Your task to perform on an android device: toggle pop-ups in chrome Image 0: 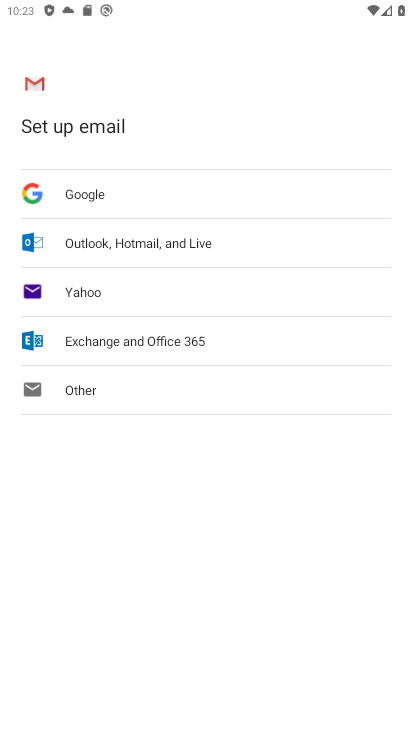
Step 0: press home button
Your task to perform on an android device: toggle pop-ups in chrome Image 1: 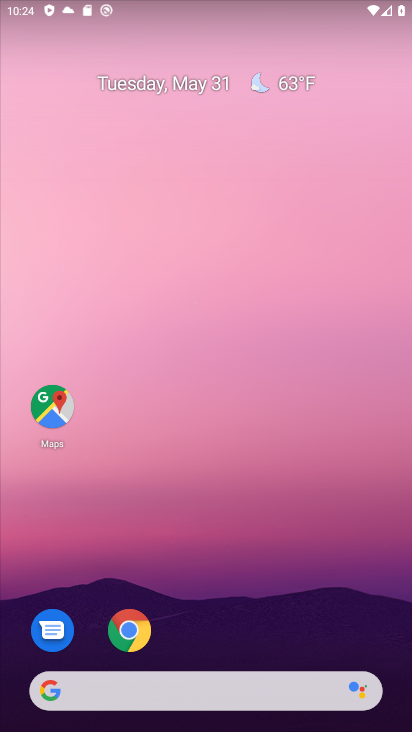
Step 1: click (128, 634)
Your task to perform on an android device: toggle pop-ups in chrome Image 2: 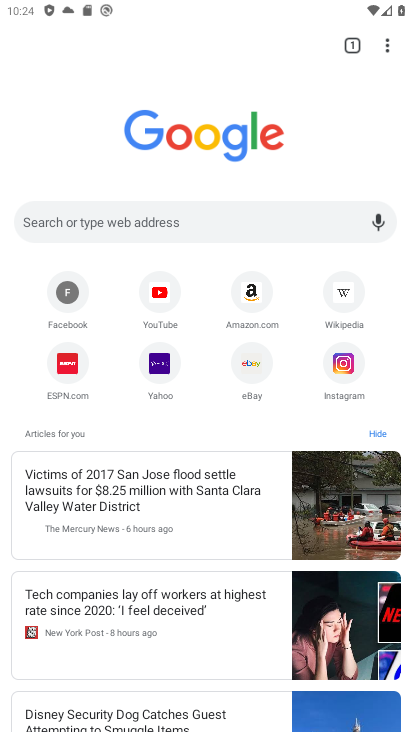
Step 2: click (392, 46)
Your task to perform on an android device: toggle pop-ups in chrome Image 3: 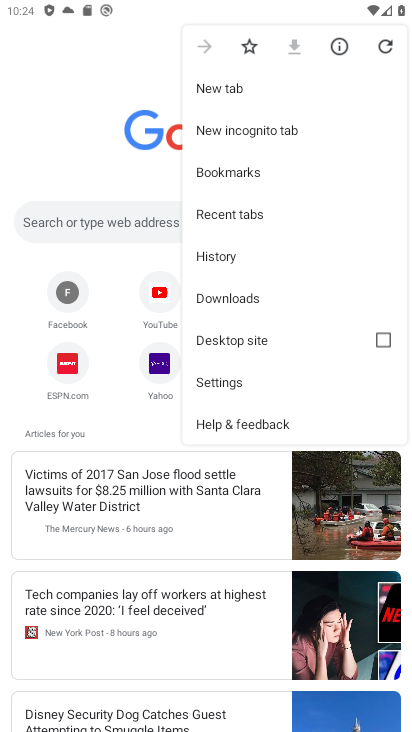
Step 3: click (221, 383)
Your task to perform on an android device: toggle pop-ups in chrome Image 4: 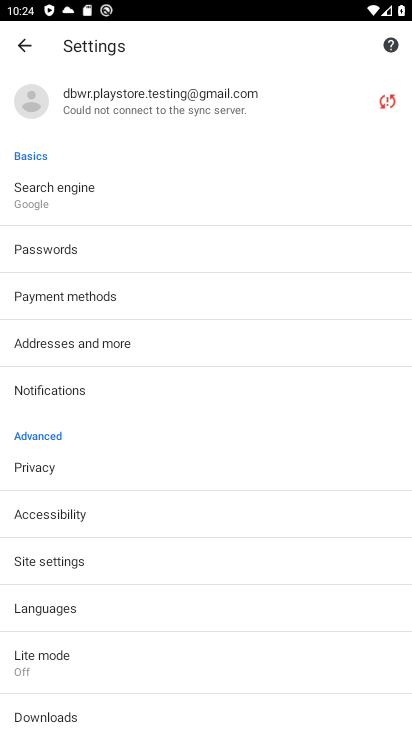
Step 4: click (75, 552)
Your task to perform on an android device: toggle pop-ups in chrome Image 5: 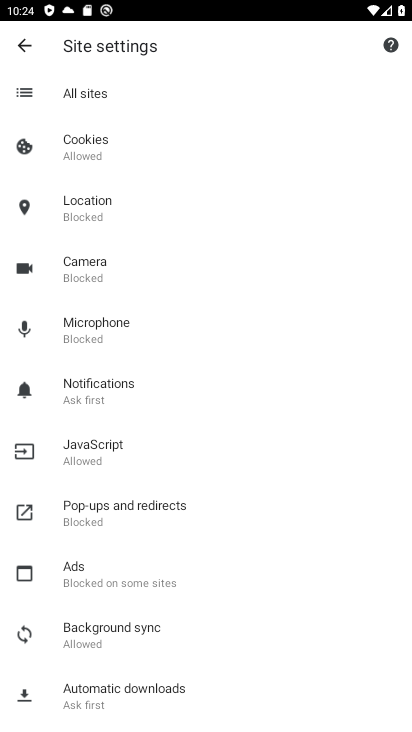
Step 5: click (101, 509)
Your task to perform on an android device: toggle pop-ups in chrome Image 6: 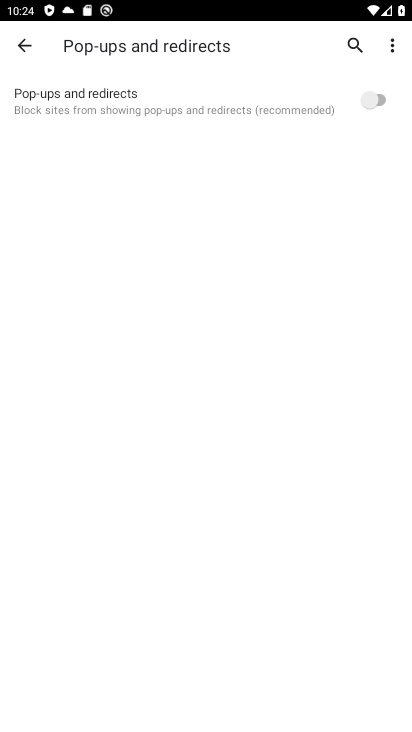
Step 6: click (386, 104)
Your task to perform on an android device: toggle pop-ups in chrome Image 7: 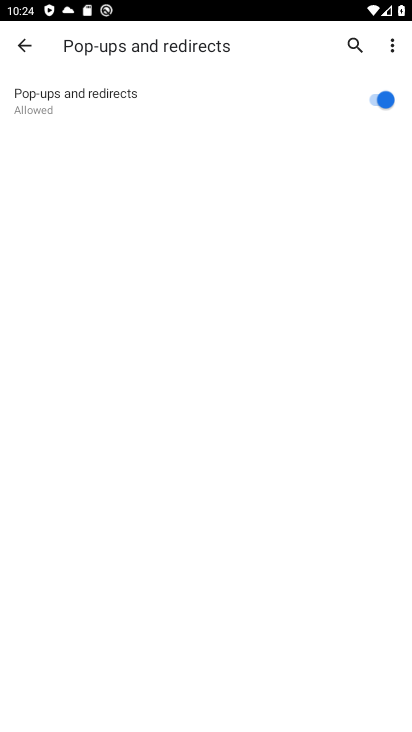
Step 7: task complete